Your task to perform on an android device: Open Google Image 0: 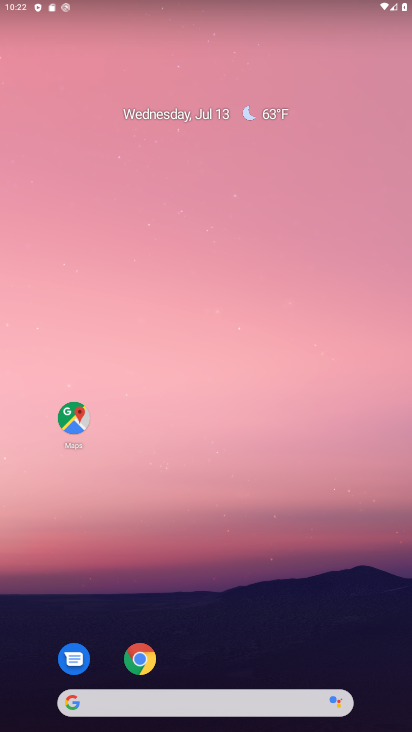
Step 0: drag from (310, 532) to (319, 137)
Your task to perform on an android device: Open Google Image 1: 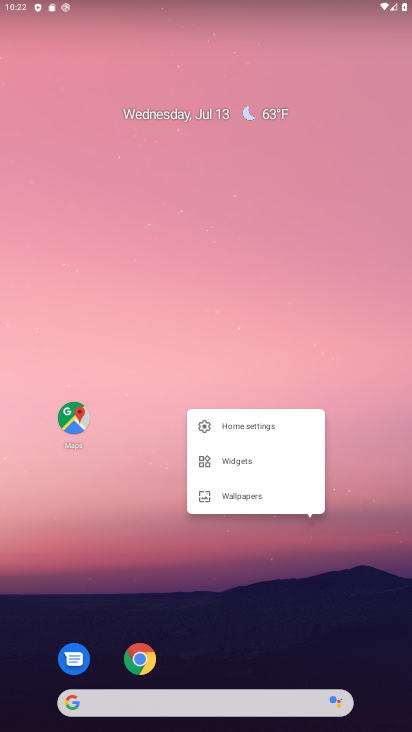
Step 1: click (362, 581)
Your task to perform on an android device: Open Google Image 2: 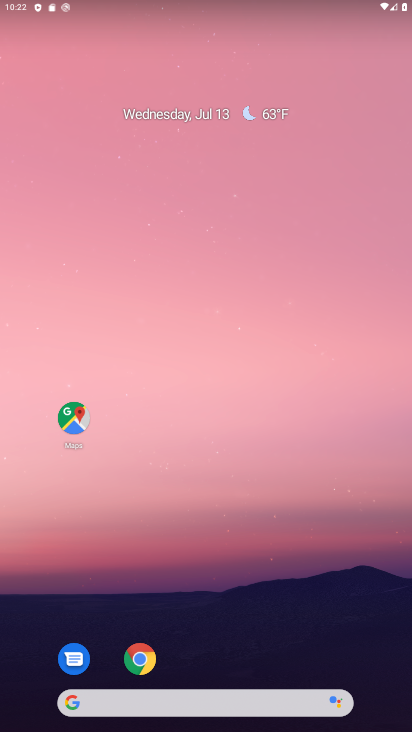
Step 2: drag from (316, 659) to (308, 195)
Your task to perform on an android device: Open Google Image 3: 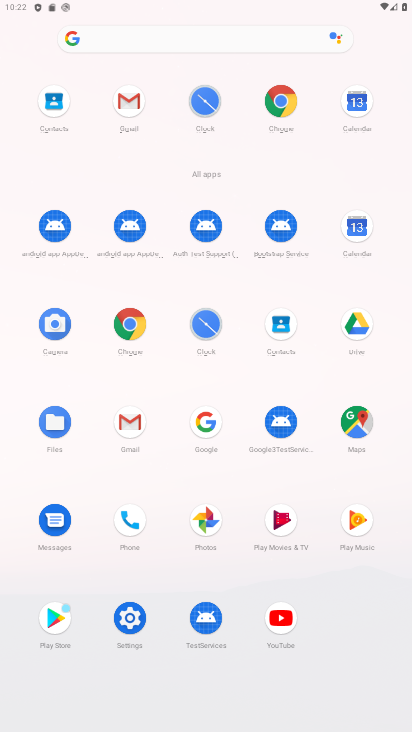
Step 3: click (203, 426)
Your task to perform on an android device: Open Google Image 4: 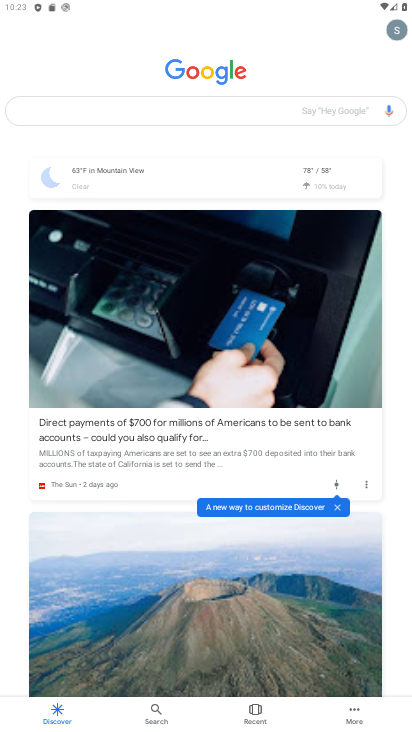
Step 4: task complete